Your task to perform on an android device: toggle show notifications on the lock screen Image 0: 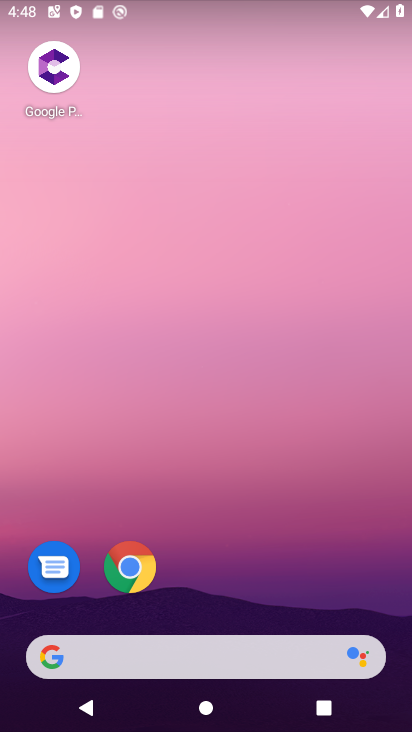
Step 0: drag from (246, 580) to (235, 84)
Your task to perform on an android device: toggle show notifications on the lock screen Image 1: 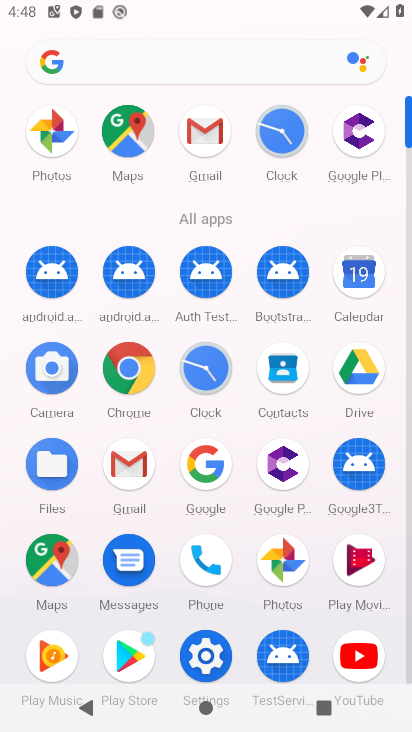
Step 1: click (206, 665)
Your task to perform on an android device: toggle show notifications on the lock screen Image 2: 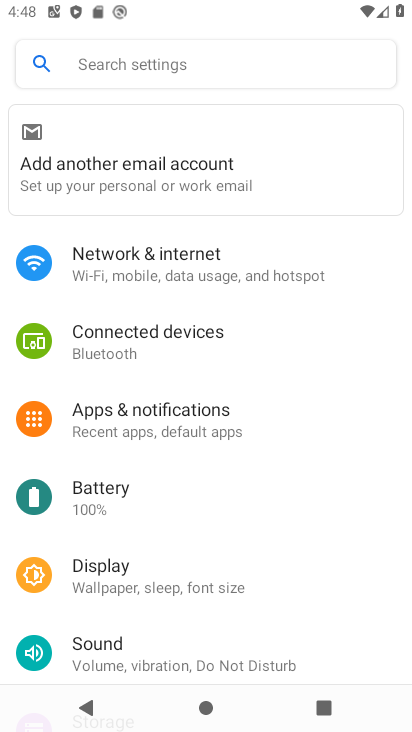
Step 2: drag from (226, 662) to (229, 298)
Your task to perform on an android device: toggle show notifications on the lock screen Image 3: 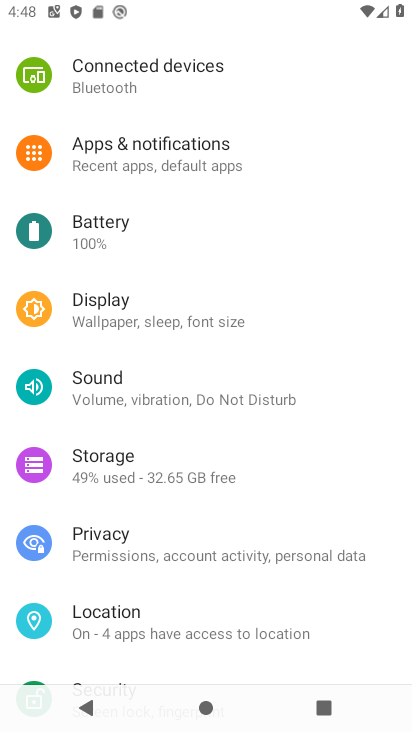
Step 3: click (218, 177)
Your task to perform on an android device: toggle show notifications on the lock screen Image 4: 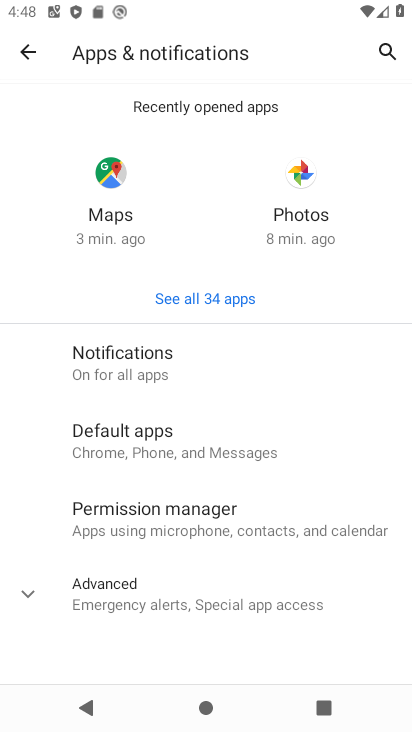
Step 4: click (112, 362)
Your task to perform on an android device: toggle show notifications on the lock screen Image 5: 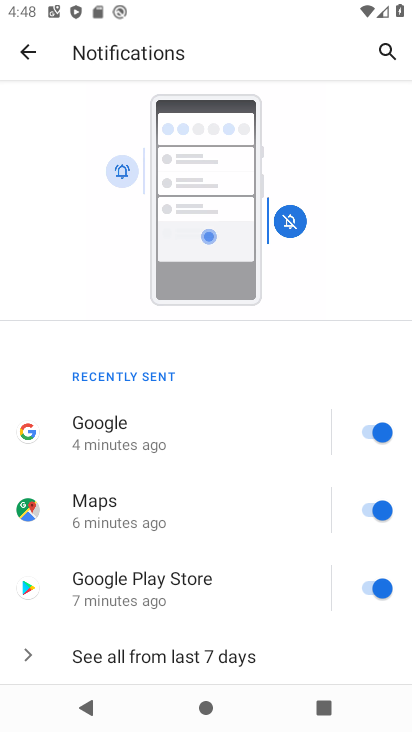
Step 5: drag from (234, 611) to (240, 2)
Your task to perform on an android device: toggle show notifications on the lock screen Image 6: 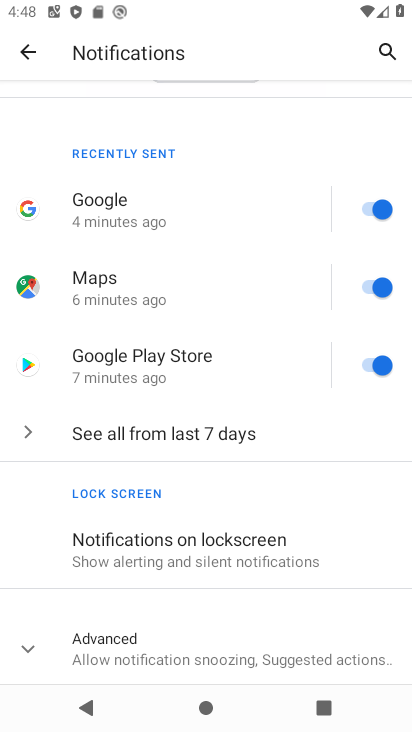
Step 6: click (188, 536)
Your task to perform on an android device: toggle show notifications on the lock screen Image 7: 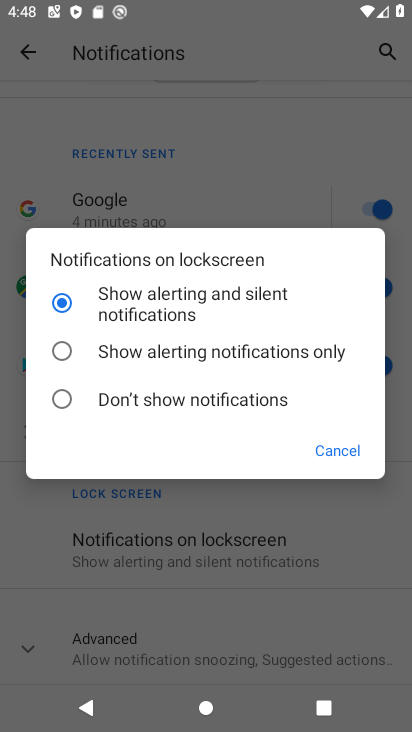
Step 7: click (134, 409)
Your task to perform on an android device: toggle show notifications on the lock screen Image 8: 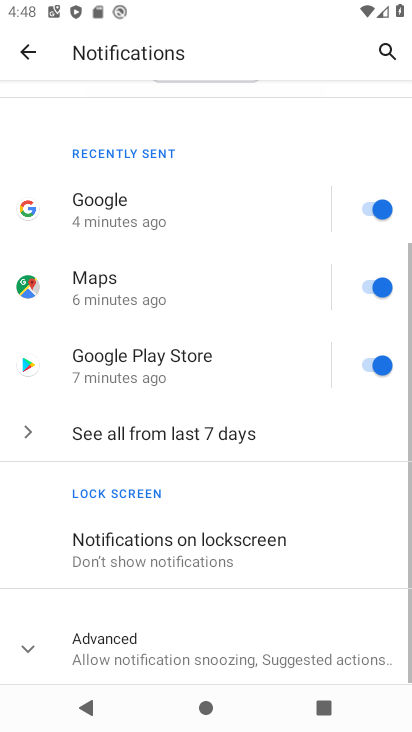
Step 8: task complete